Your task to perform on an android device: Search for macbook pro on costco, select the first entry, add it to the cart, then select checkout. Image 0: 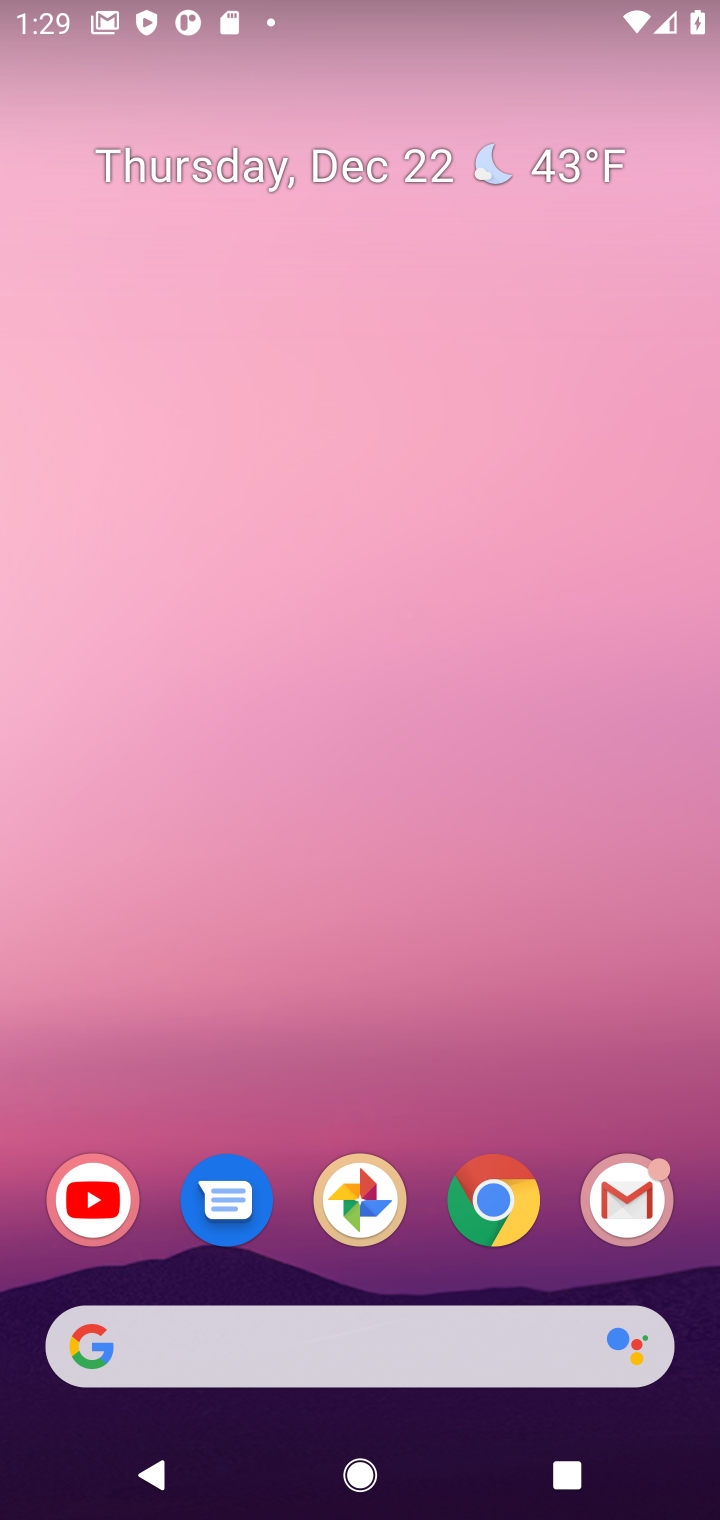
Step 0: click (497, 1206)
Your task to perform on an android device: Search for macbook pro on costco, select the first entry, add it to the cart, then select checkout. Image 1: 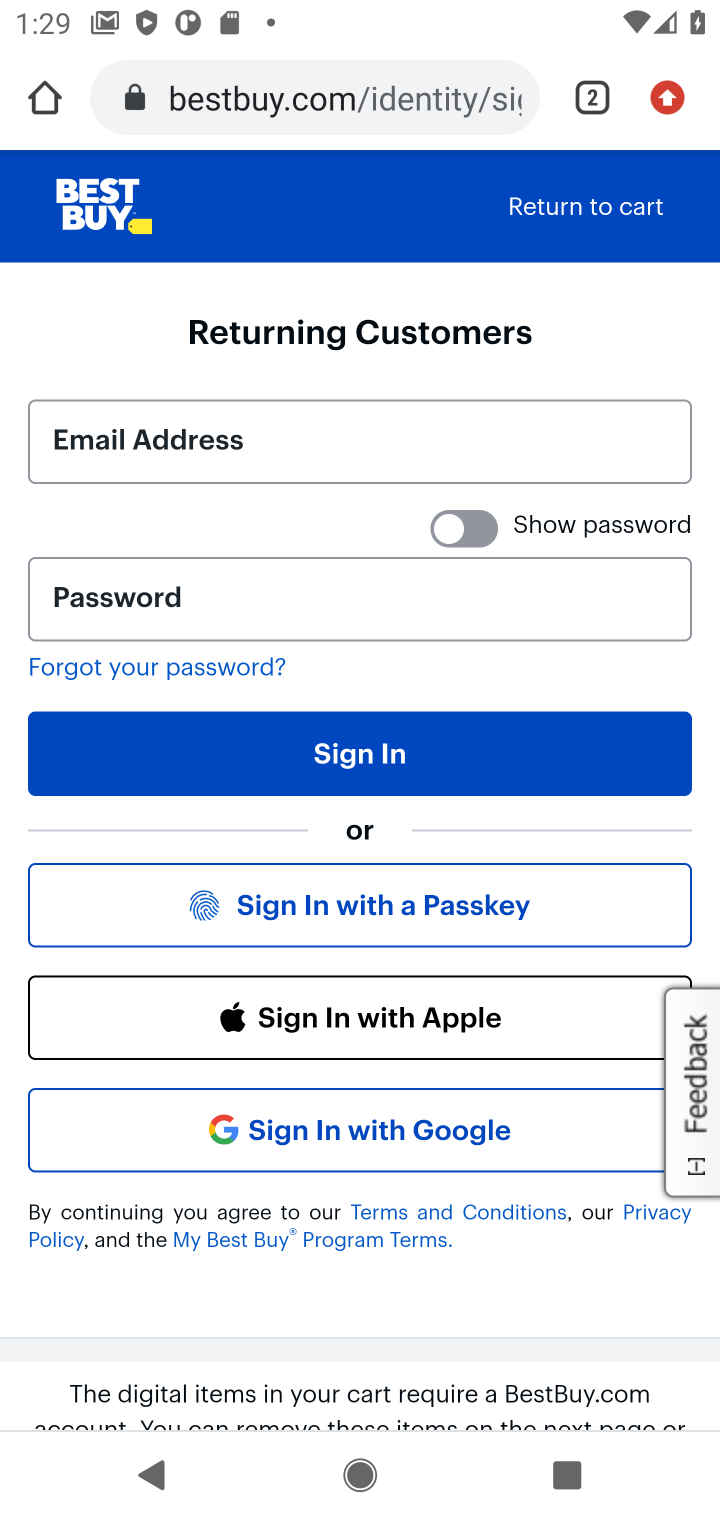
Step 1: click (283, 102)
Your task to perform on an android device: Search for macbook pro on costco, select the first entry, add it to the cart, then select checkout. Image 2: 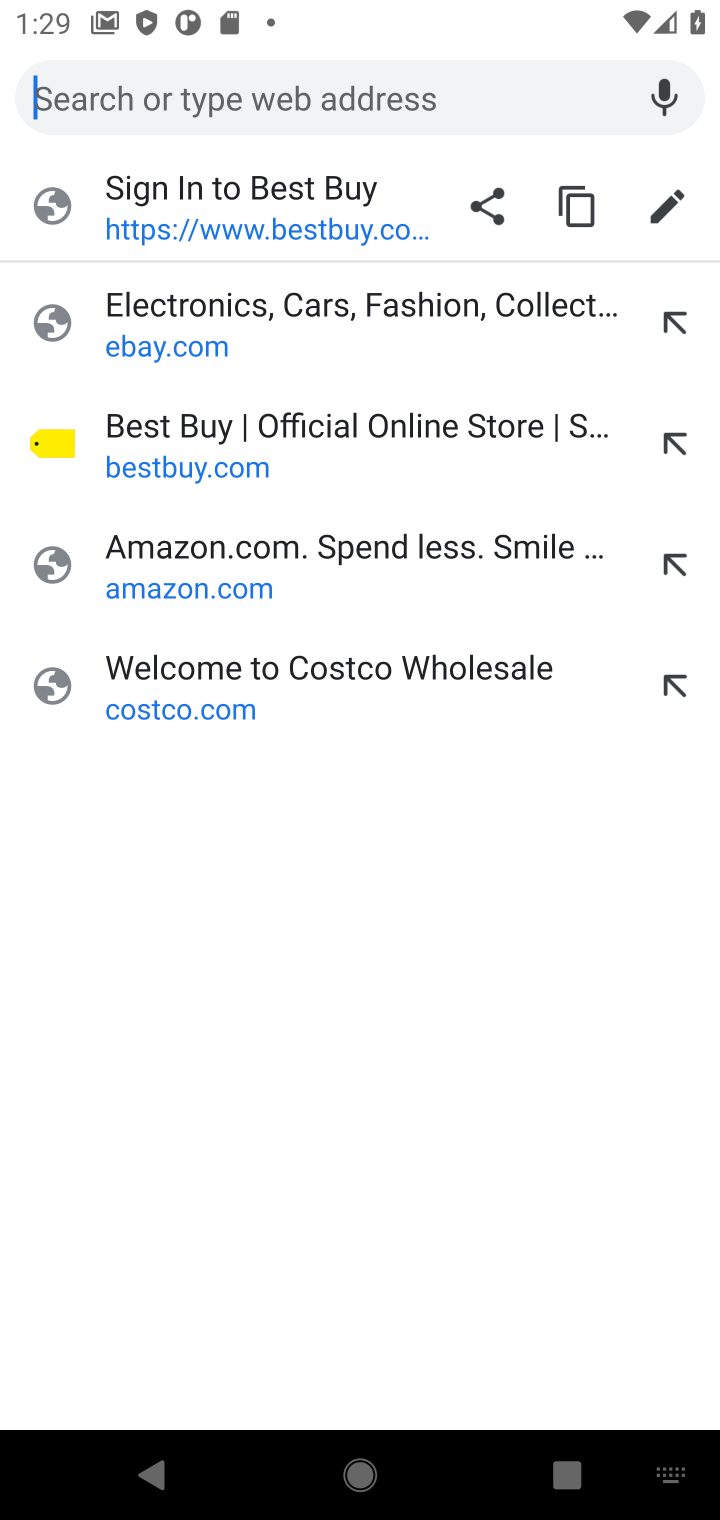
Step 2: click (135, 674)
Your task to perform on an android device: Search for macbook pro on costco, select the first entry, add it to the cart, then select checkout. Image 3: 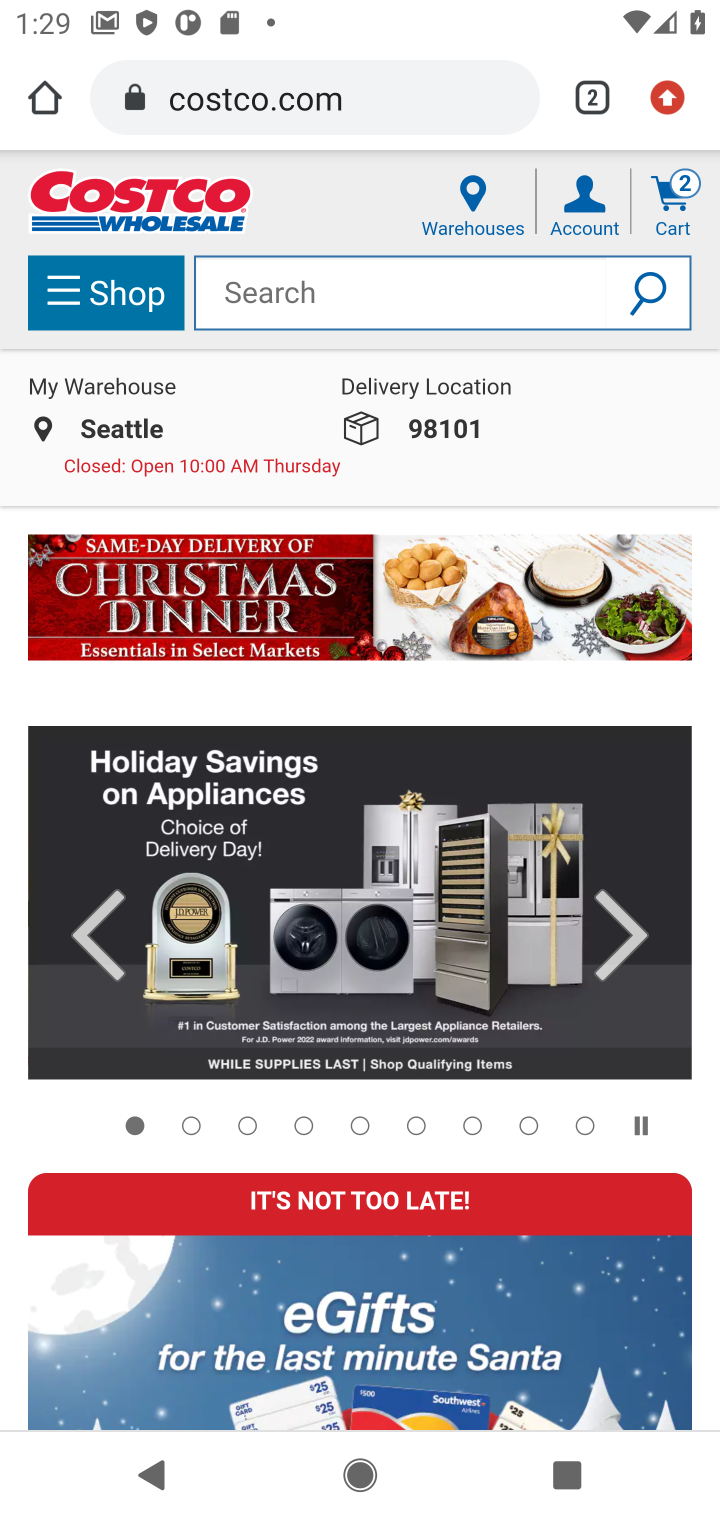
Step 3: click (314, 296)
Your task to perform on an android device: Search for macbook pro on costco, select the first entry, add it to the cart, then select checkout. Image 4: 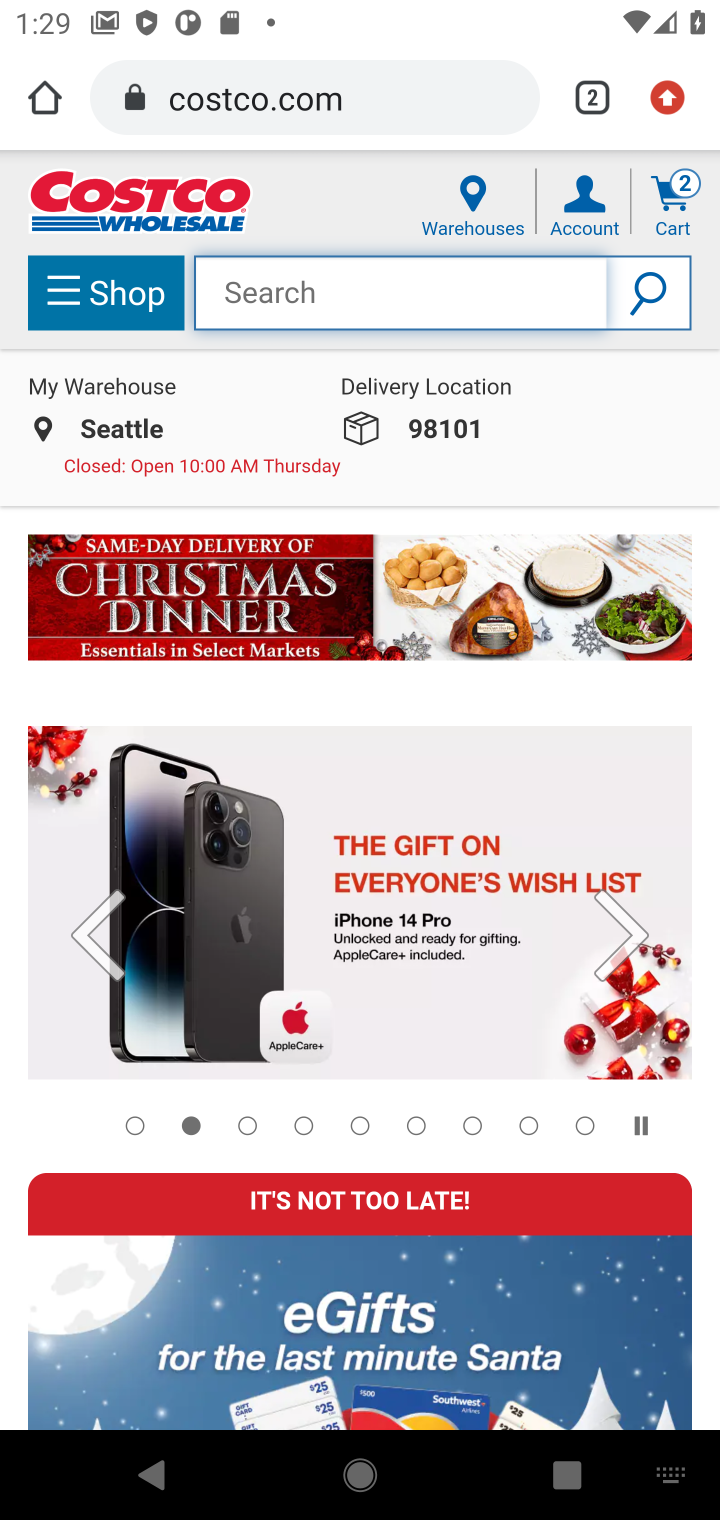
Step 4: type "macbook pro"
Your task to perform on an android device: Search for macbook pro on costco, select the first entry, add it to the cart, then select checkout. Image 5: 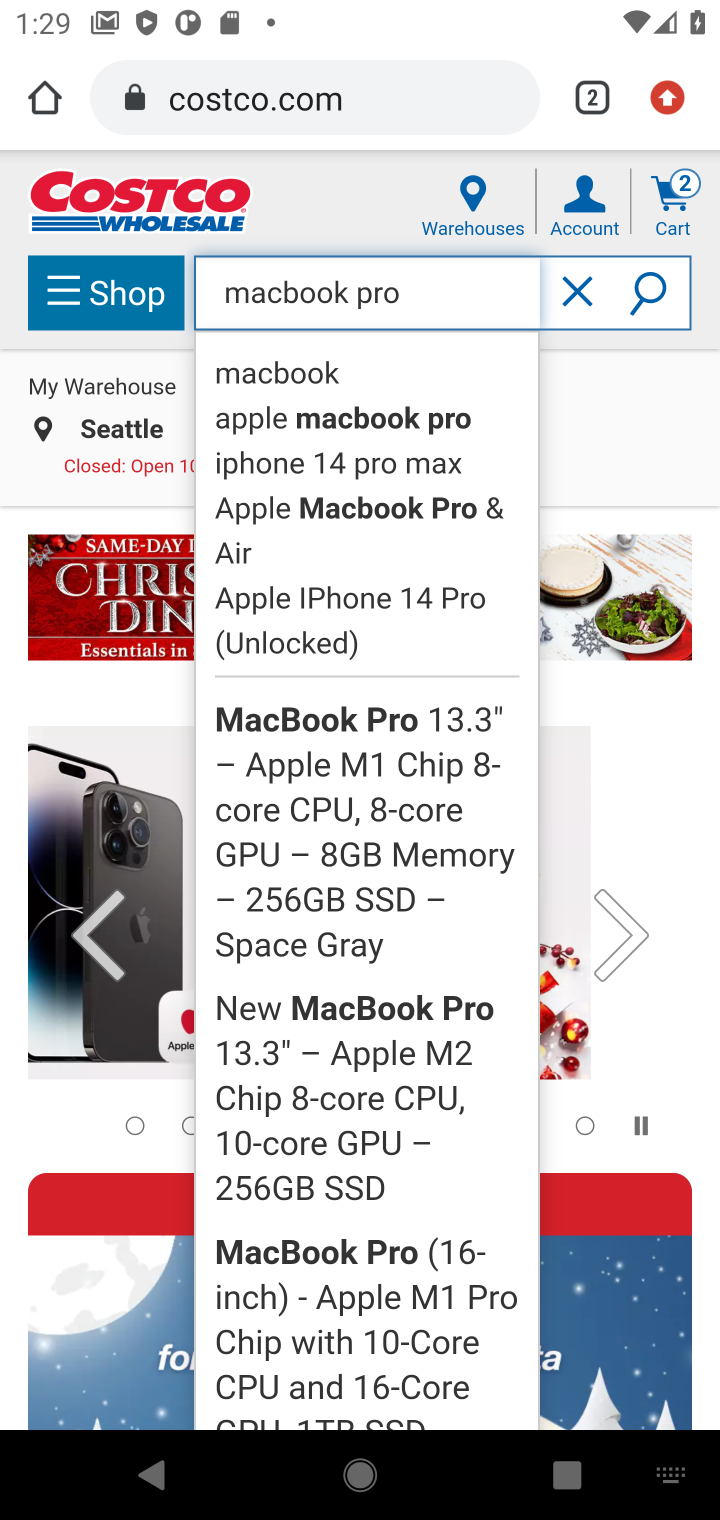
Step 5: click (640, 294)
Your task to perform on an android device: Search for macbook pro on costco, select the first entry, add it to the cart, then select checkout. Image 6: 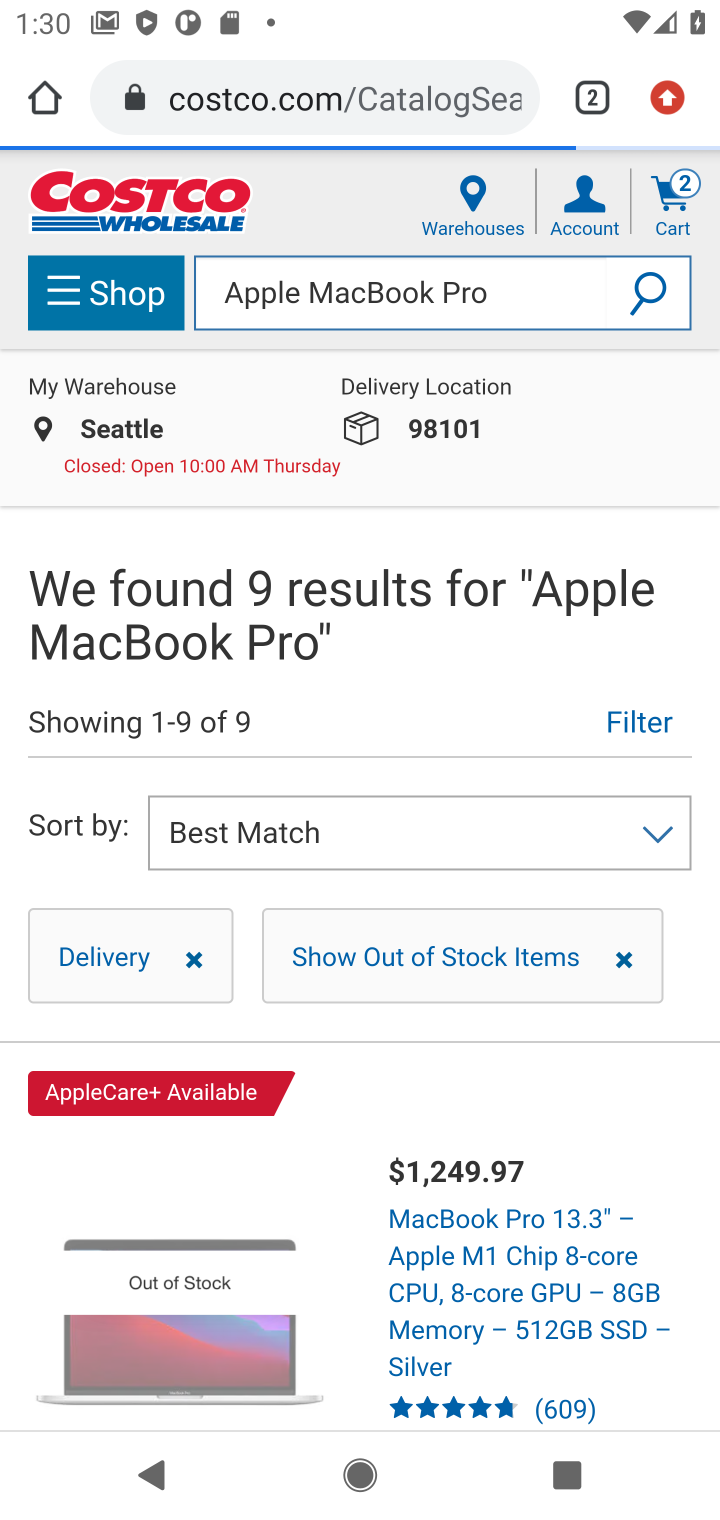
Step 6: task complete